Your task to perform on an android device: What's the weather going to be this weekend? Image 0: 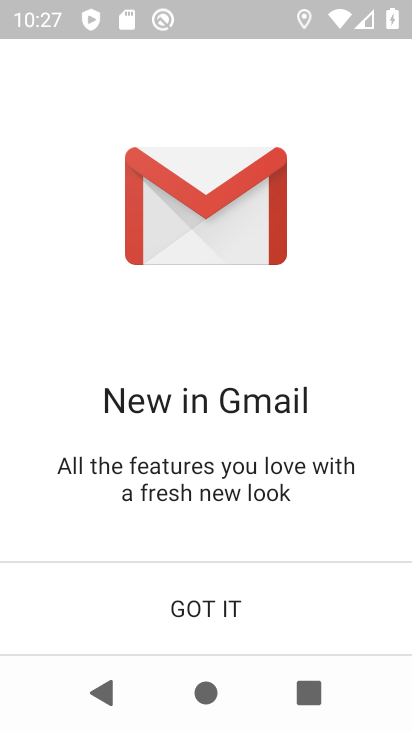
Step 0: click (199, 634)
Your task to perform on an android device: What's the weather going to be this weekend? Image 1: 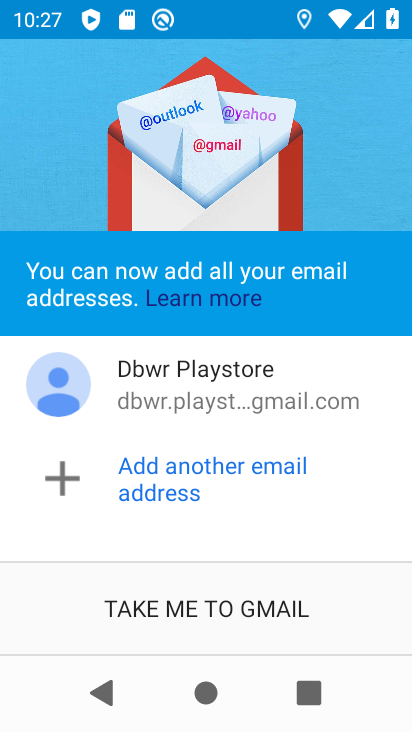
Step 1: press home button
Your task to perform on an android device: What's the weather going to be this weekend? Image 2: 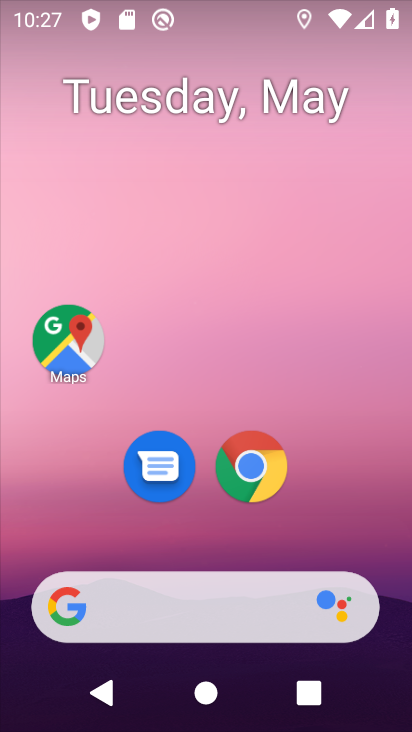
Step 2: drag from (196, 545) to (206, 0)
Your task to perform on an android device: What's the weather going to be this weekend? Image 3: 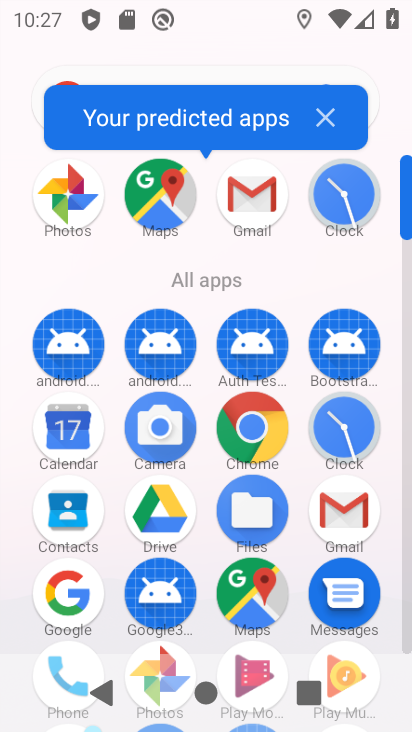
Step 3: click (48, 425)
Your task to perform on an android device: What's the weather going to be this weekend? Image 4: 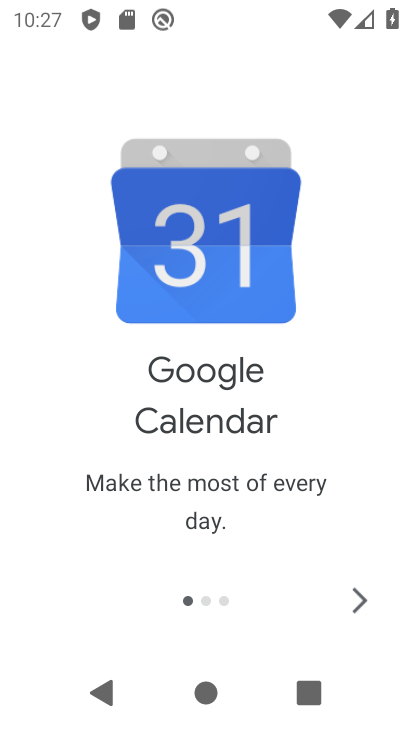
Step 4: click (351, 607)
Your task to perform on an android device: What's the weather going to be this weekend? Image 5: 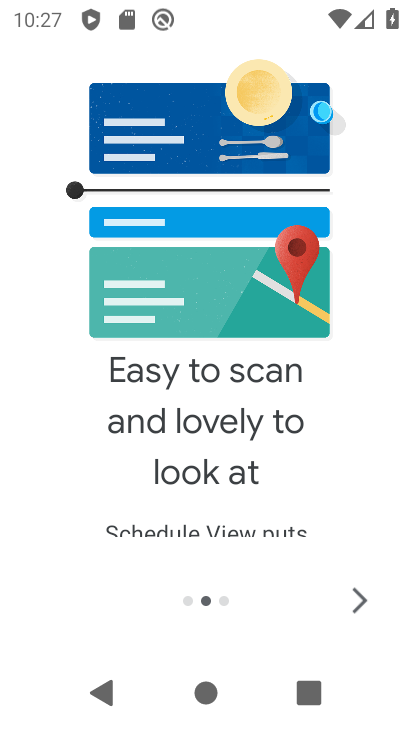
Step 5: click (364, 598)
Your task to perform on an android device: What's the weather going to be this weekend? Image 6: 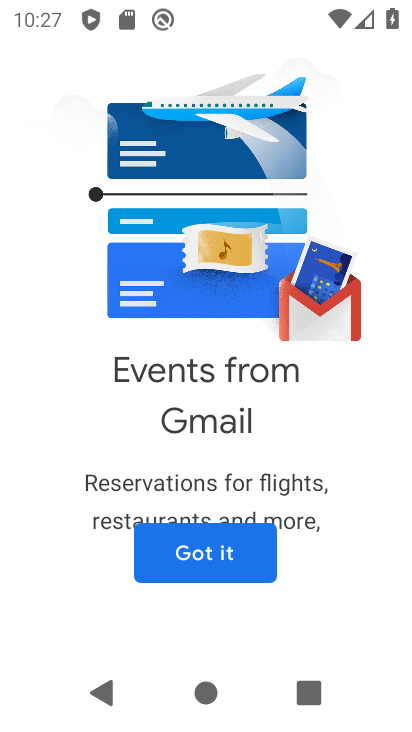
Step 6: click (210, 576)
Your task to perform on an android device: What's the weather going to be this weekend? Image 7: 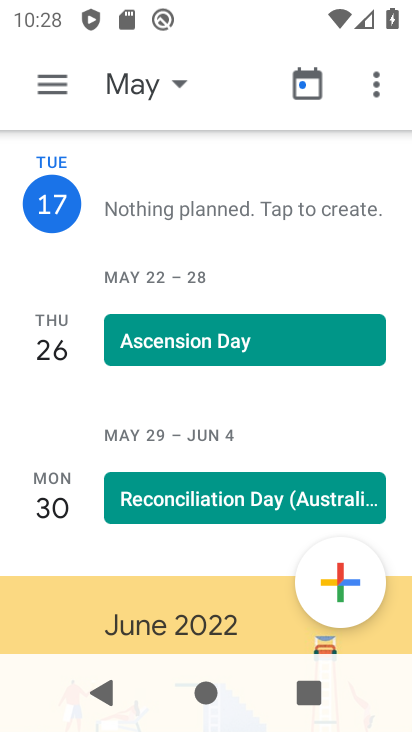
Step 7: click (39, 88)
Your task to perform on an android device: What's the weather going to be this weekend? Image 8: 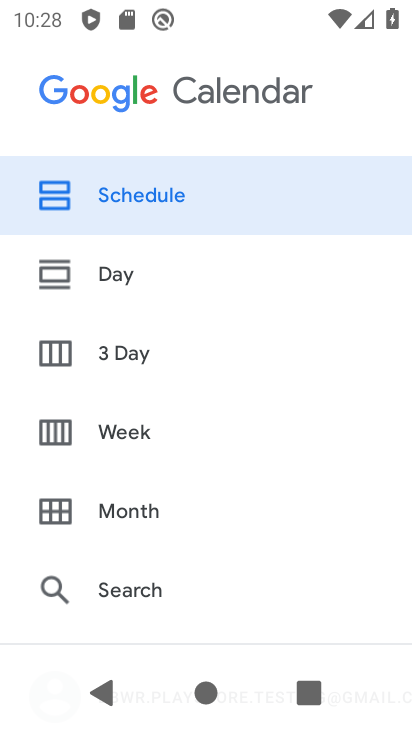
Step 8: drag from (177, 465) to (199, 154)
Your task to perform on an android device: What's the weather going to be this weekend? Image 9: 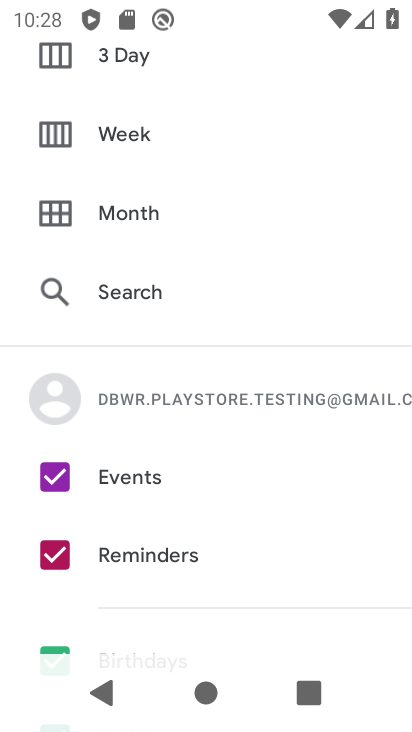
Step 9: click (144, 115)
Your task to perform on an android device: What's the weather going to be this weekend? Image 10: 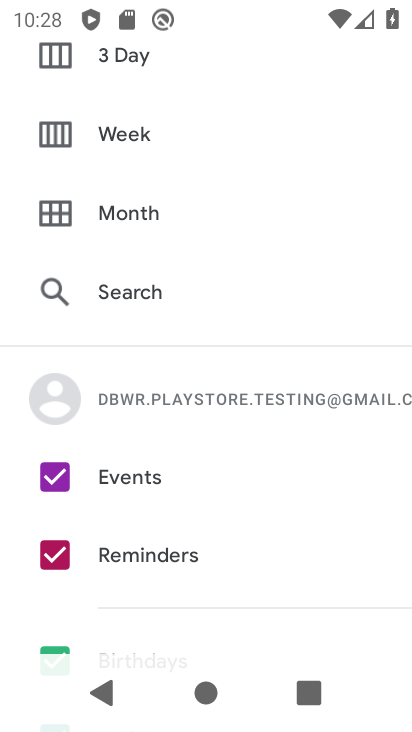
Step 10: click (136, 125)
Your task to perform on an android device: What's the weather going to be this weekend? Image 11: 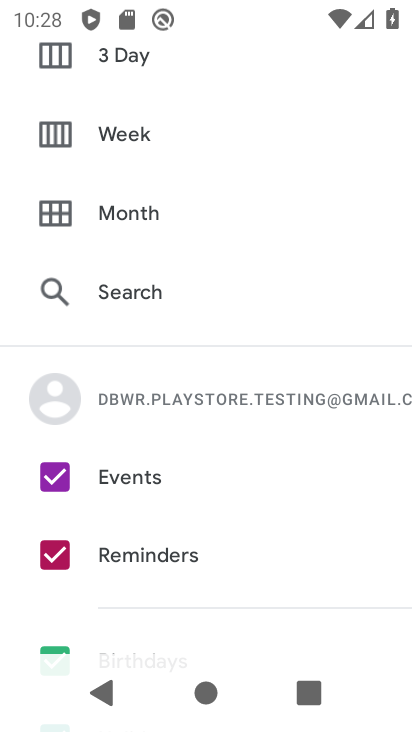
Step 11: click (115, 139)
Your task to perform on an android device: What's the weather going to be this weekend? Image 12: 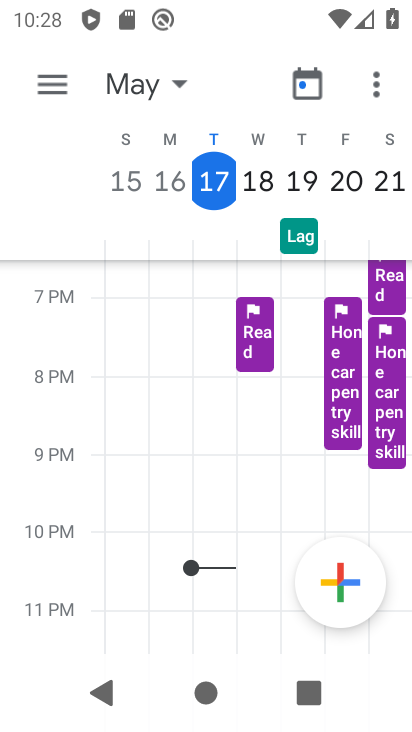
Step 12: task complete